Your task to perform on an android device: change the clock display to digital Image 0: 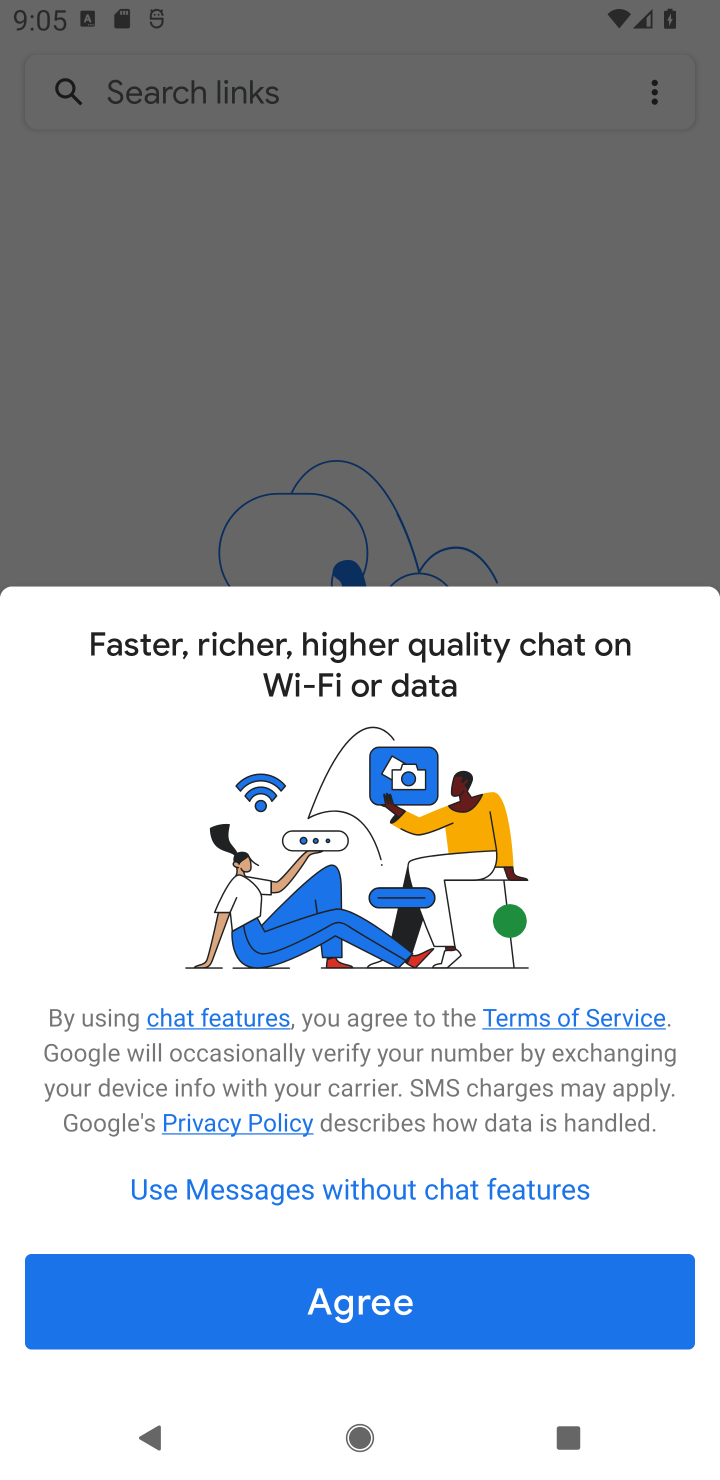
Step 0: press home button
Your task to perform on an android device: change the clock display to digital Image 1: 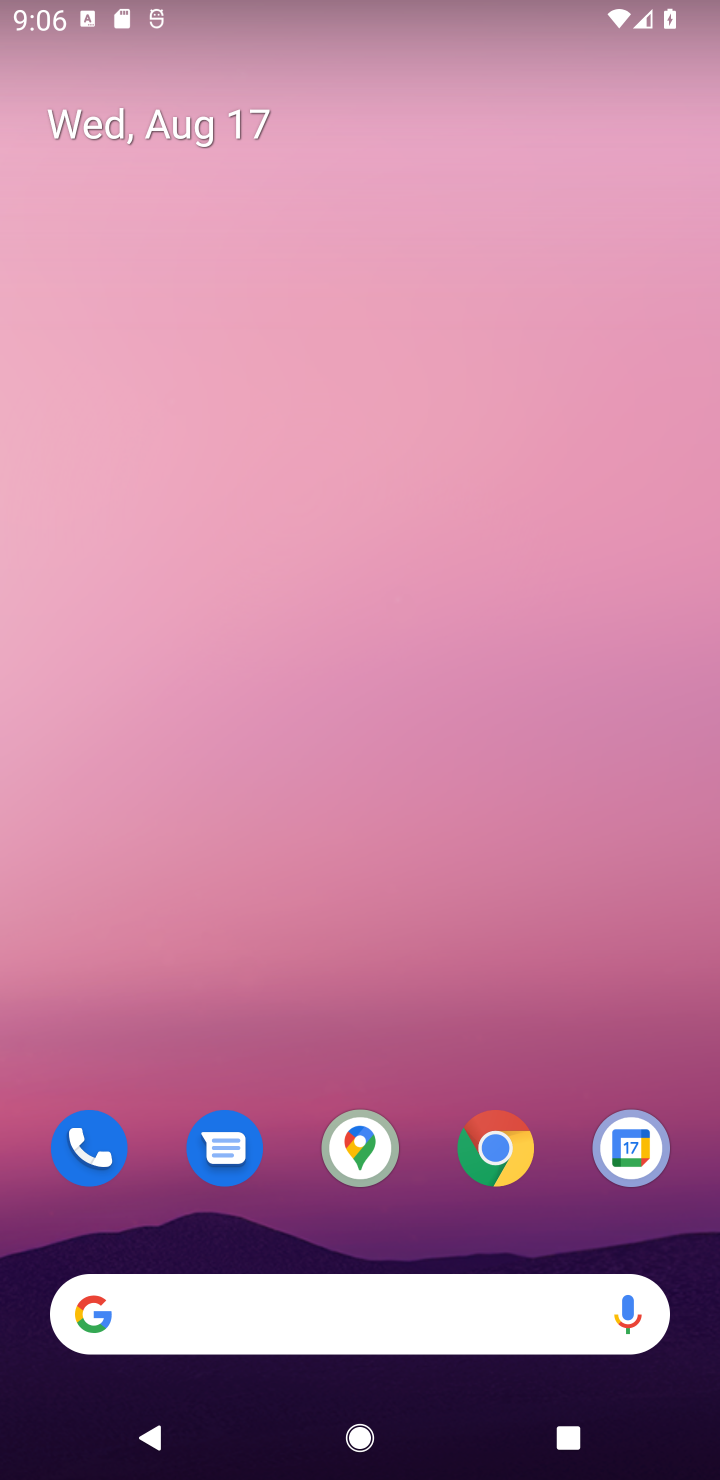
Step 1: drag from (588, 1231) to (493, 179)
Your task to perform on an android device: change the clock display to digital Image 2: 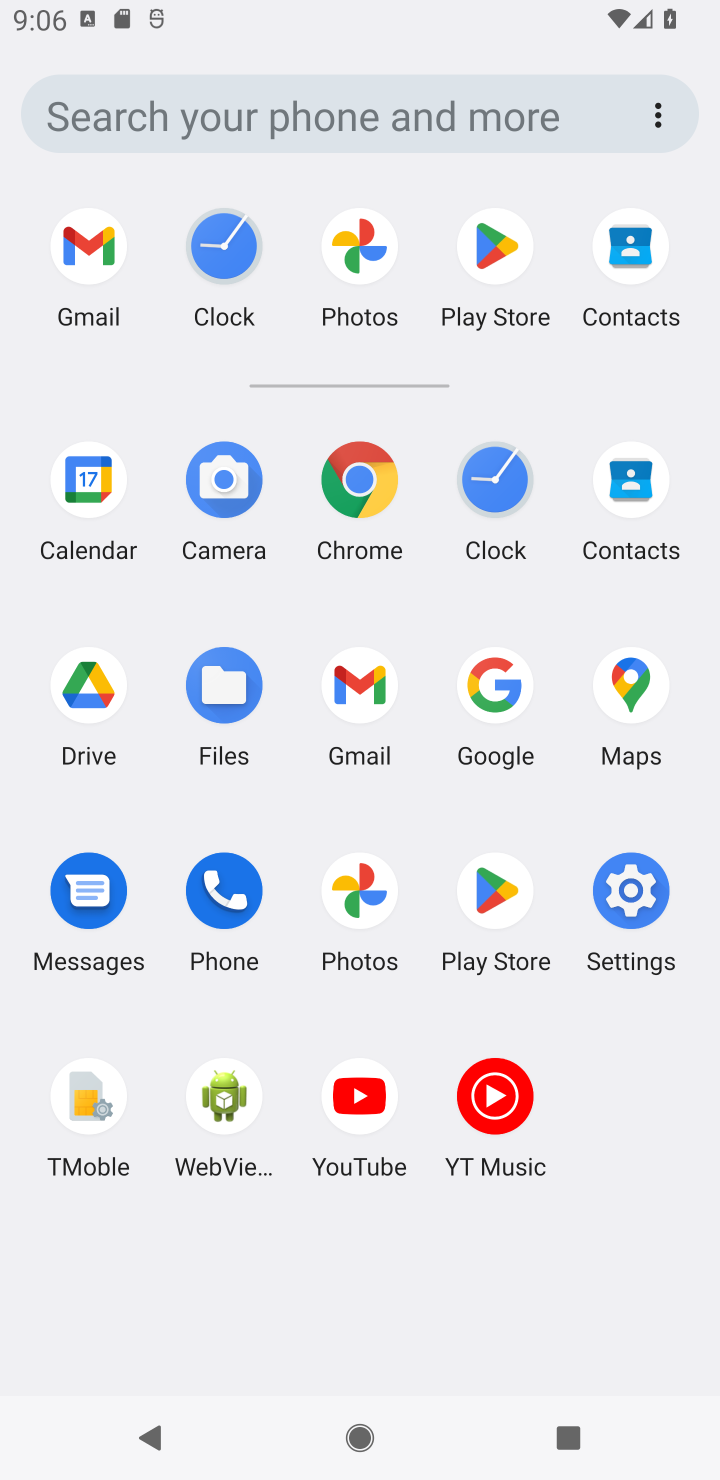
Step 2: click (497, 485)
Your task to perform on an android device: change the clock display to digital Image 3: 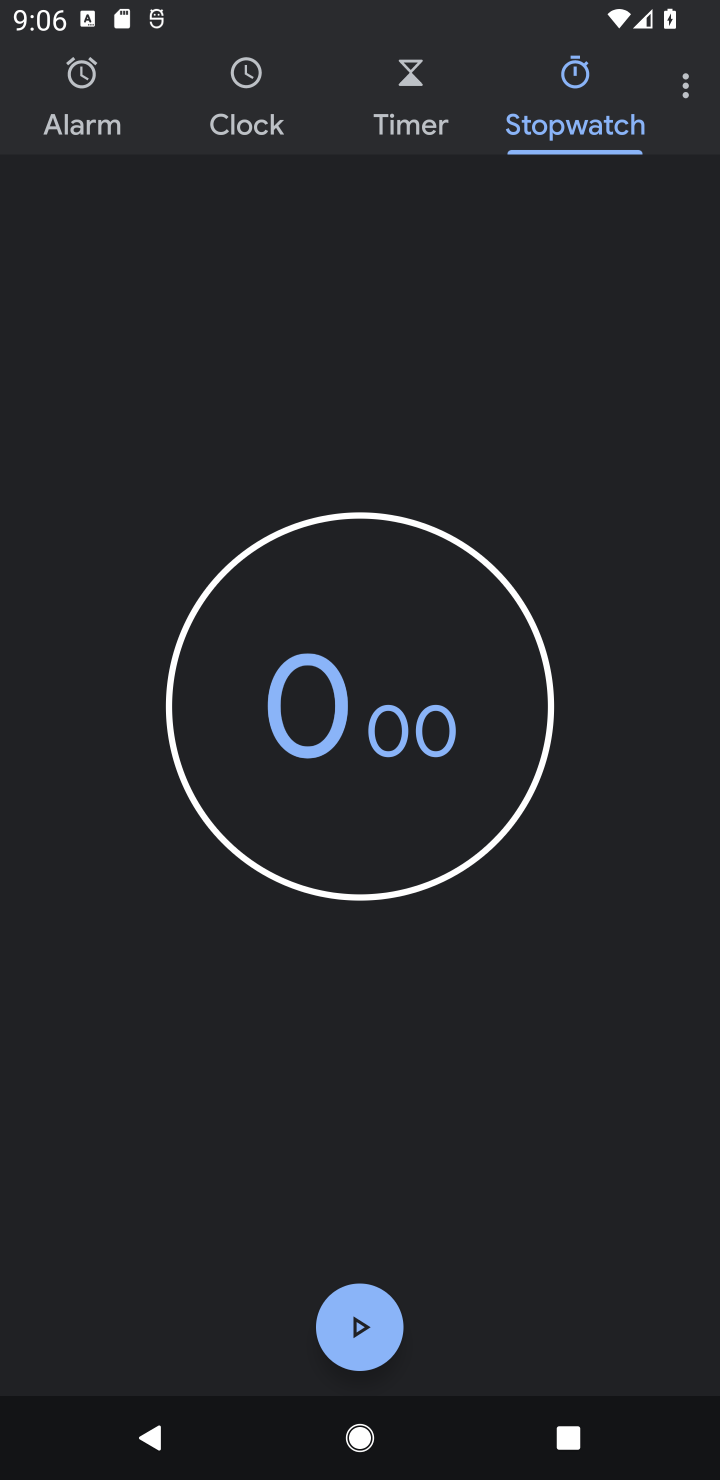
Step 3: click (681, 101)
Your task to perform on an android device: change the clock display to digital Image 4: 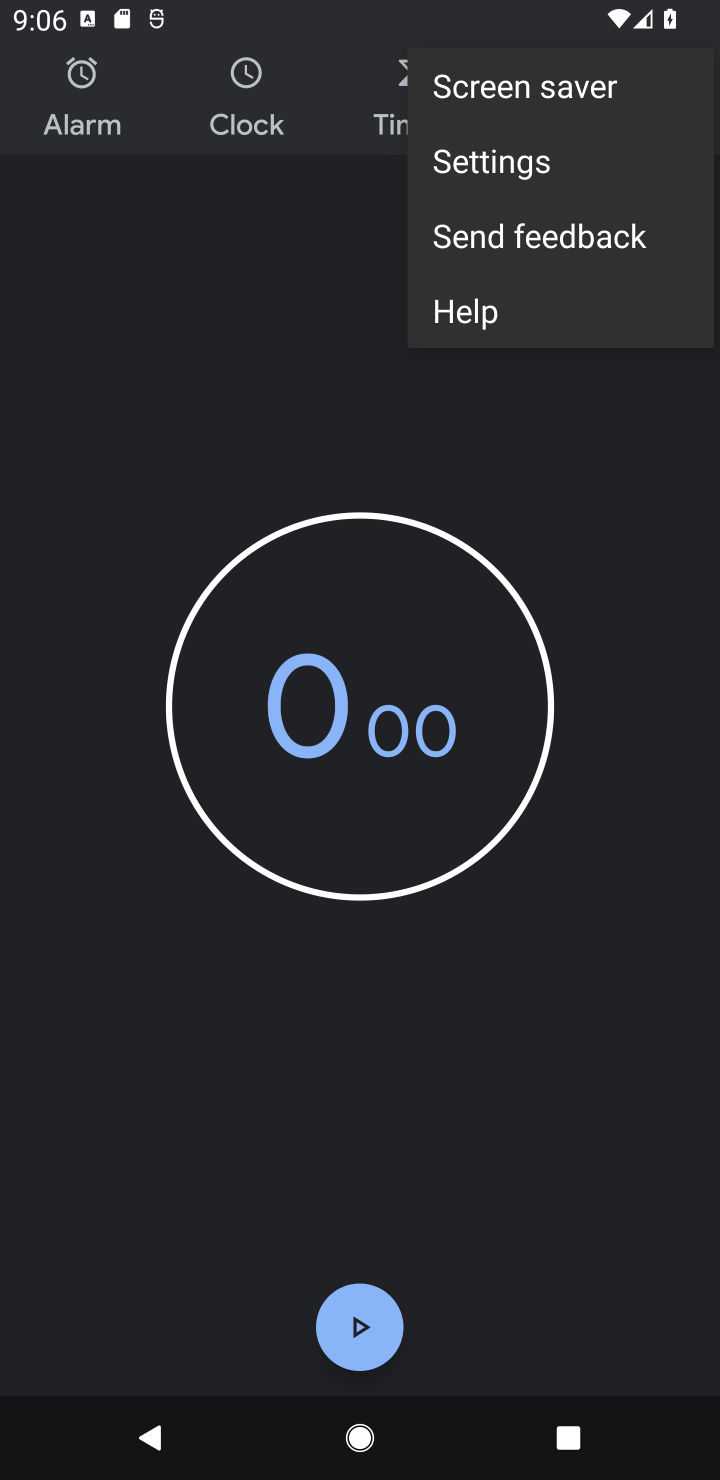
Step 4: click (475, 159)
Your task to perform on an android device: change the clock display to digital Image 5: 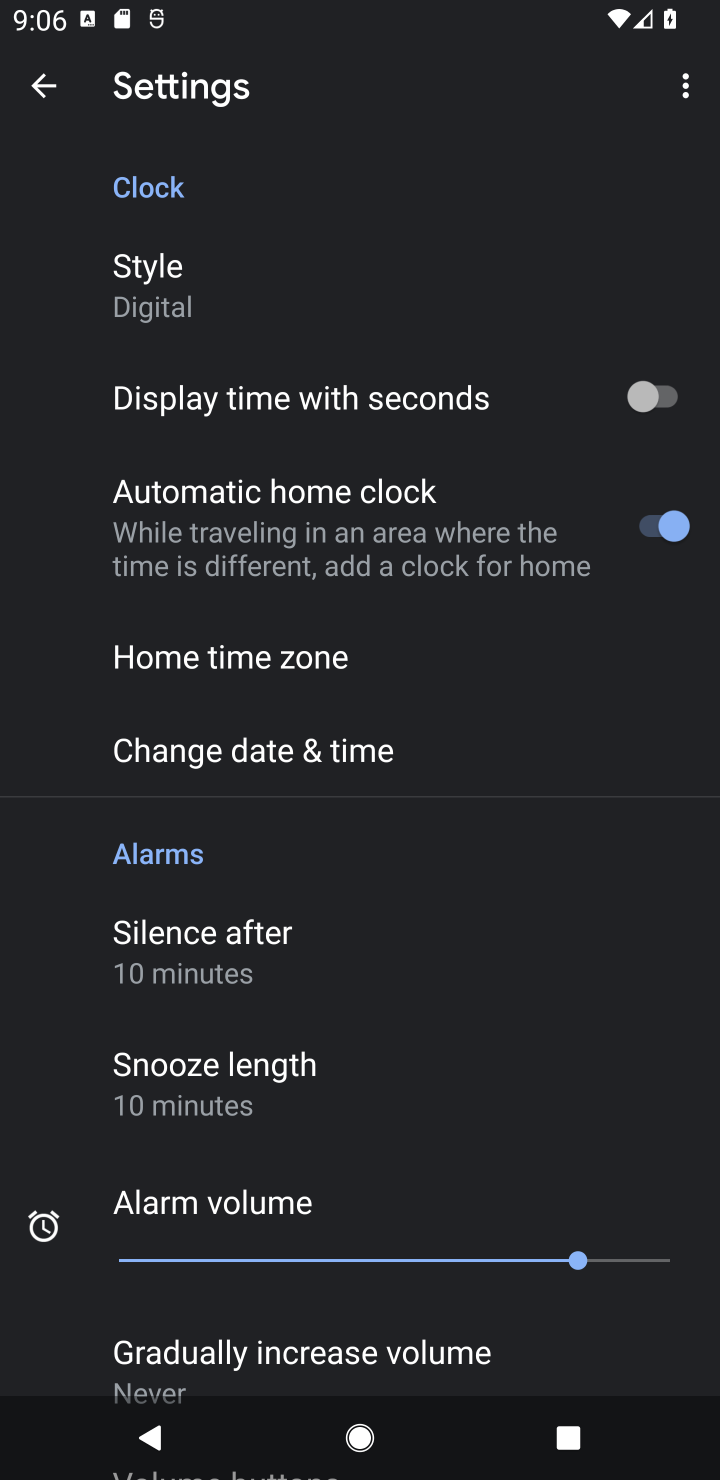
Step 5: task complete